Your task to perform on an android device: set default search engine in the chrome app Image 0: 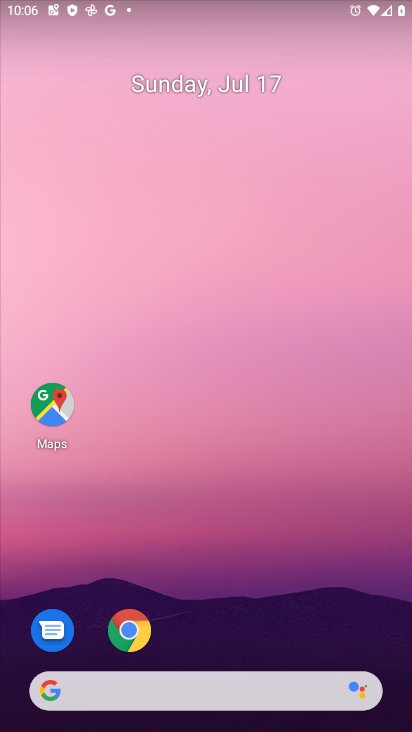
Step 0: click (132, 623)
Your task to perform on an android device: set default search engine in the chrome app Image 1: 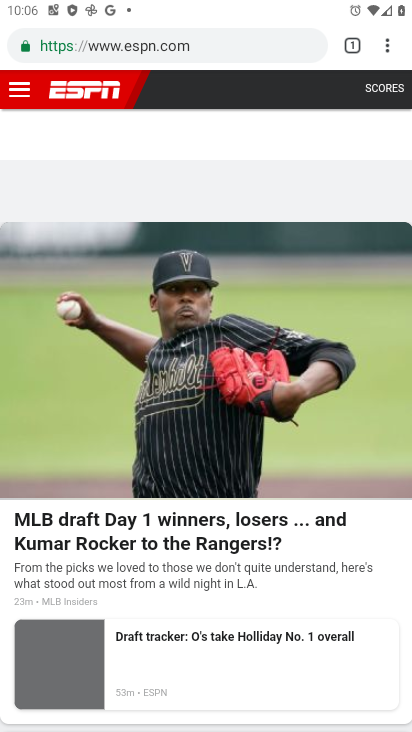
Step 1: click (387, 41)
Your task to perform on an android device: set default search engine in the chrome app Image 2: 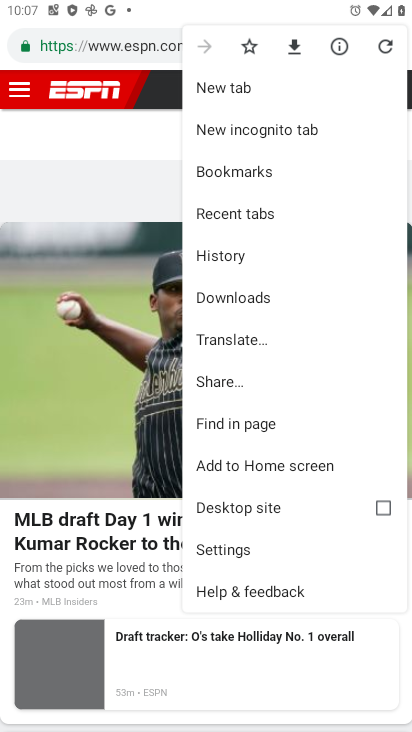
Step 2: click (232, 557)
Your task to perform on an android device: set default search engine in the chrome app Image 3: 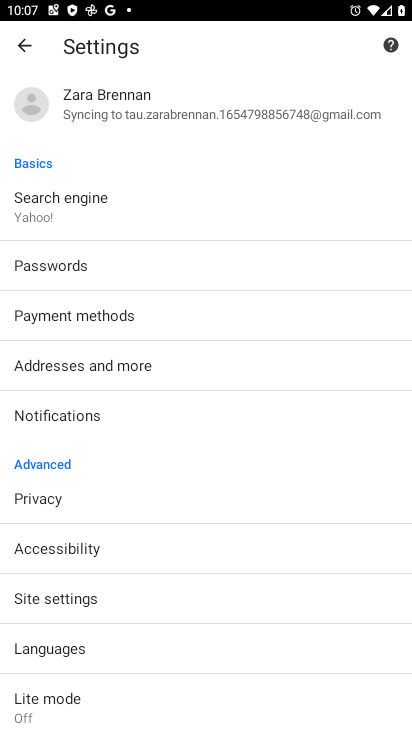
Step 3: click (86, 191)
Your task to perform on an android device: set default search engine in the chrome app Image 4: 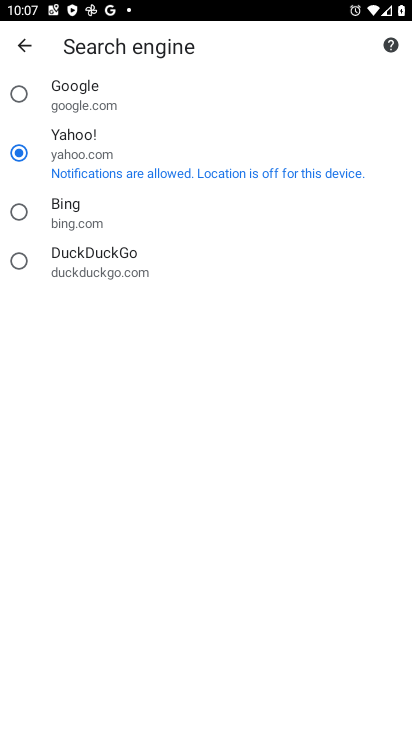
Step 4: click (18, 97)
Your task to perform on an android device: set default search engine in the chrome app Image 5: 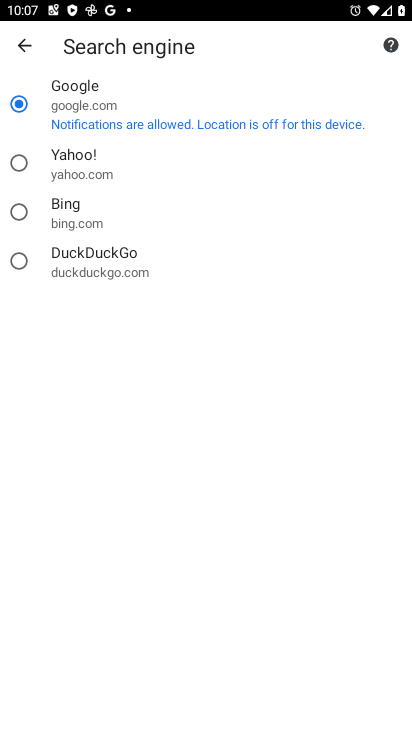
Step 5: task complete